Your task to perform on an android device: toggle sleep mode Image 0: 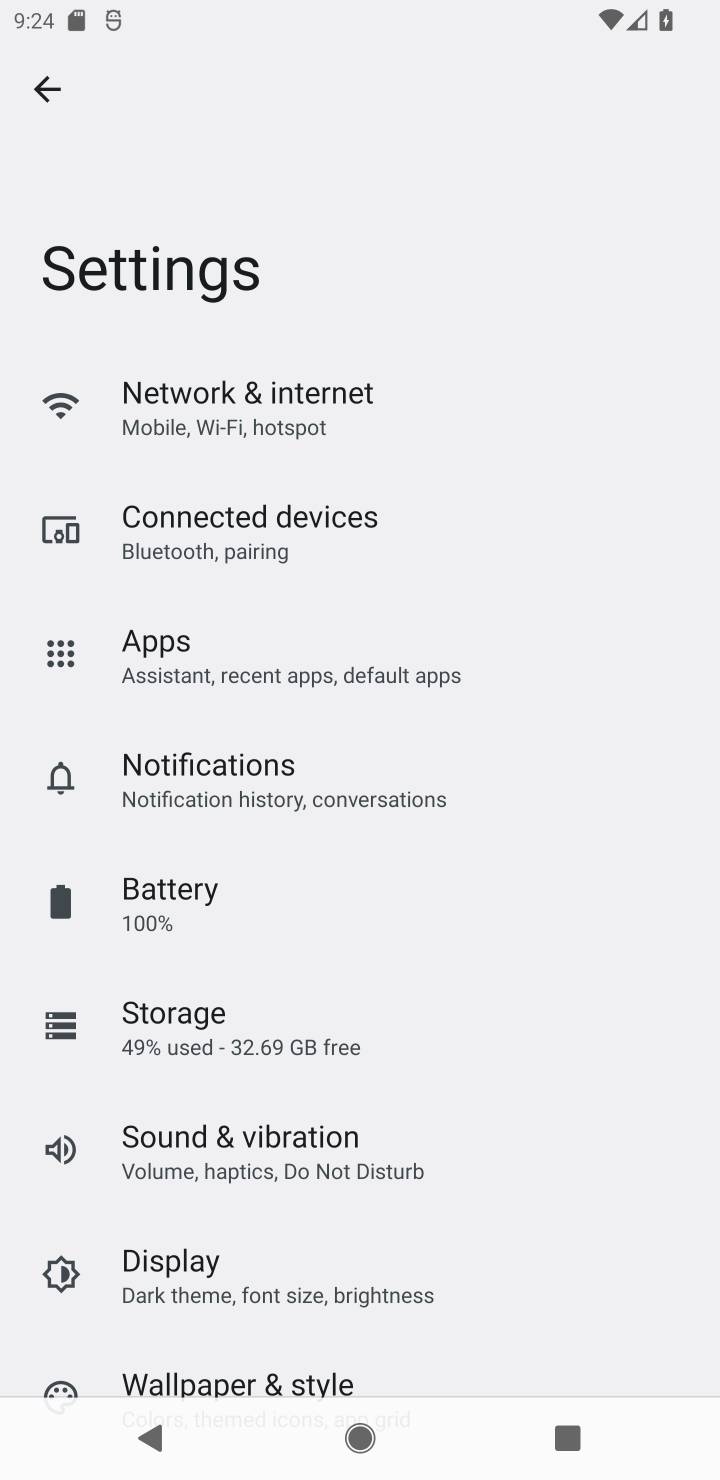
Step 0: task impossible